Your task to perform on an android device: turn on sleep mode Image 0: 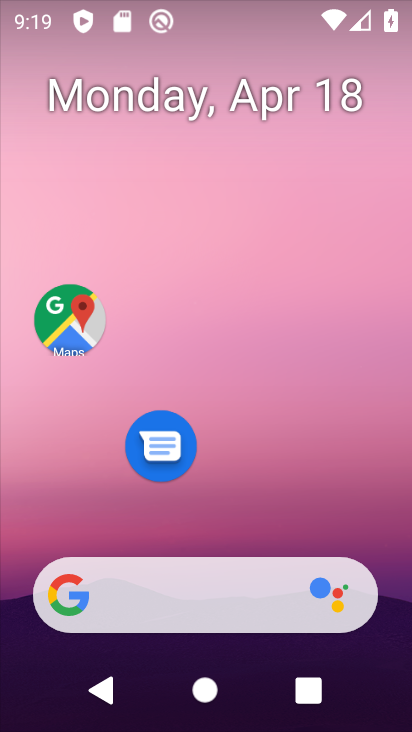
Step 0: drag from (209, 542) to (258, 93)
Your task to perform on an android device: turn on sleep mode Image 1: 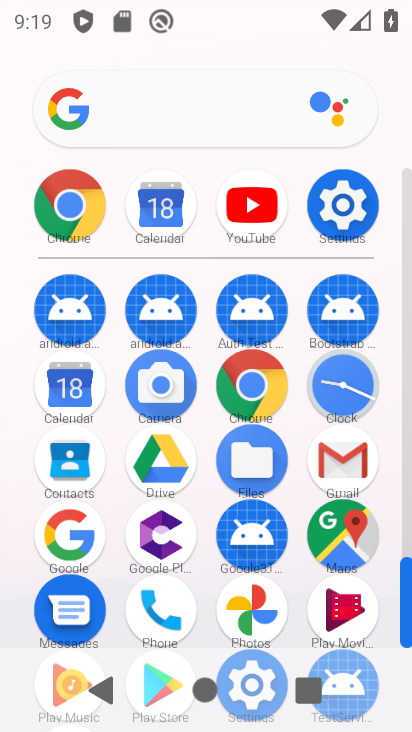
Step 1: click (339, 199)
Your task to perform on an android device: turn on sleep mode Image 2: 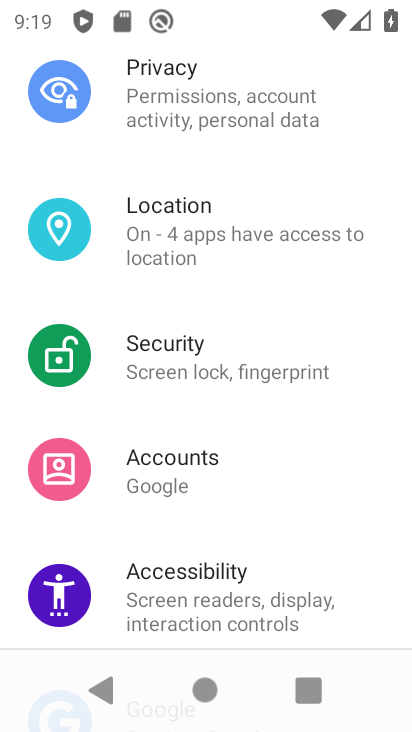
Step 2: drag from (229, 119) to (230, 728)
Your task to perform on an android device: turn on sleep mode Image 3: 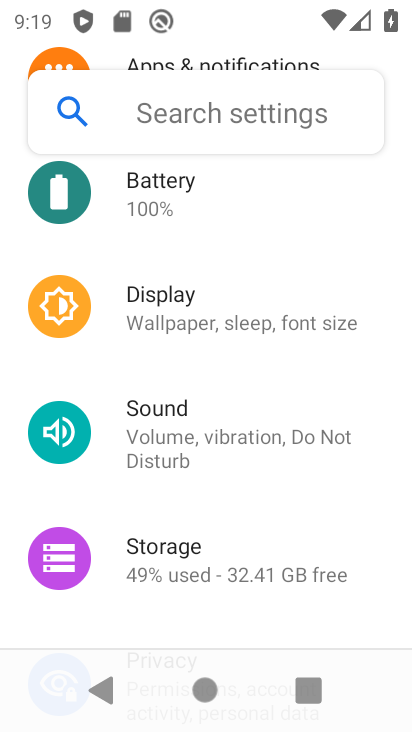
Step 3: click (208, 292)
Your task to perform on an android device: turn on sleep mode Image 4: 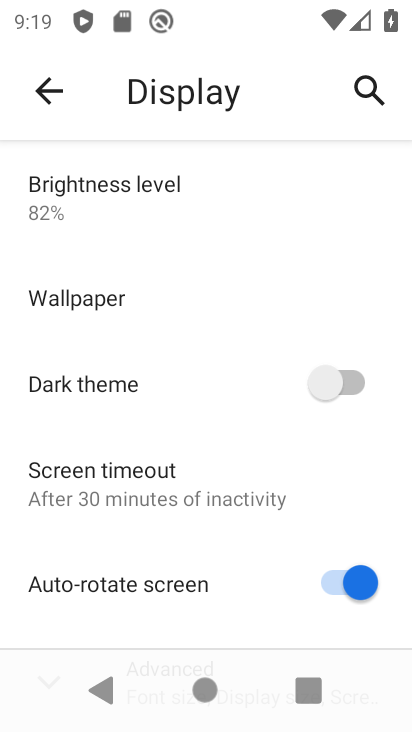
Step 4: drag from (191, 576) to (236, 63)
Your task to perform on an android device: turn on sleep mode Image 5: 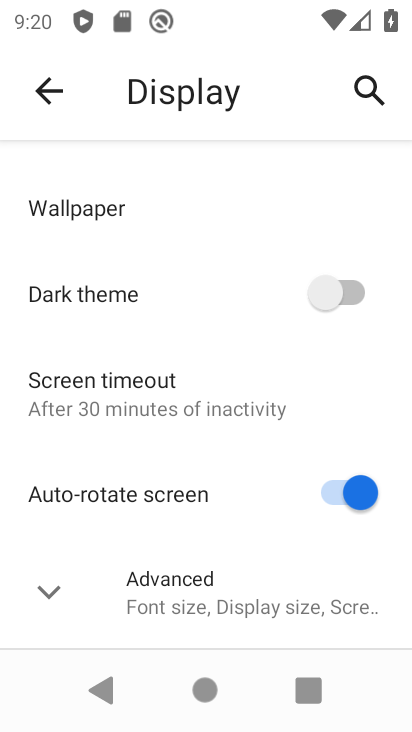
Step 5: click (48, 579)
Your task to perform on an android device: turn on sleep mode Image 6: 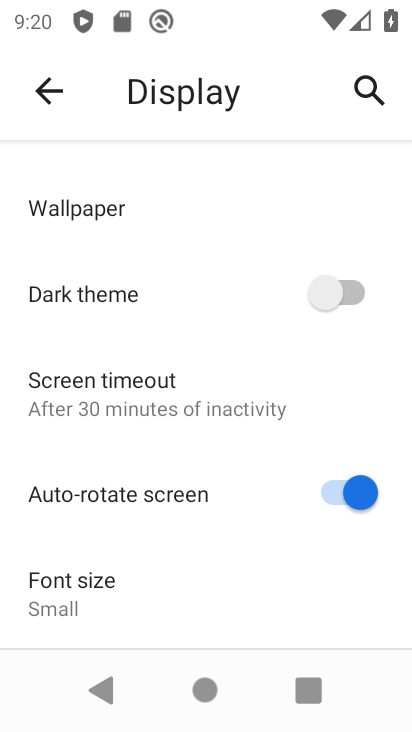
Step 6: task complete